Your task to perform on an android device: add a contact in the contacts app Image 0: 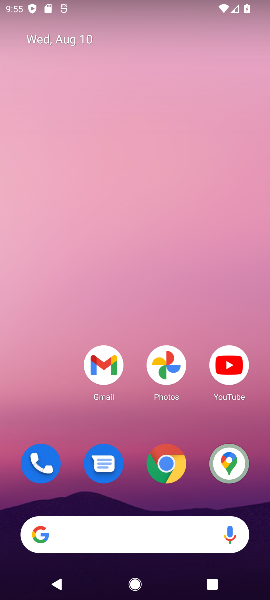
Step 0: click (40, 458)
Your task to perform on an android device: add a contact in the contacts app Image 1: 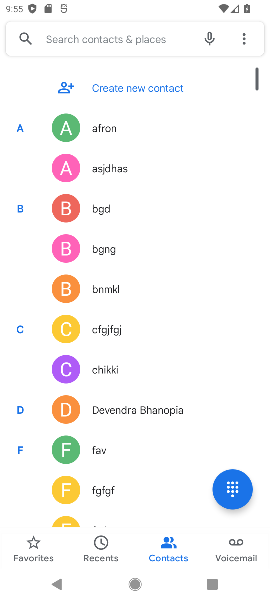
Step 1: click (109, 89)
Your task to perform on an android device: add a contact in the contacts app Image 2: 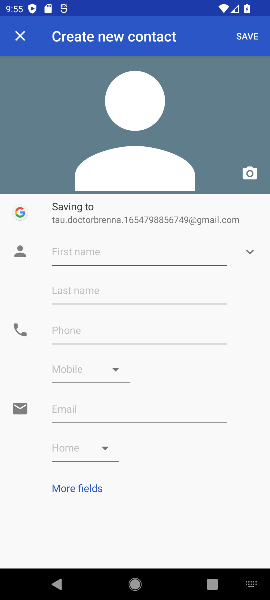
Step 2: type "sdhb"
Your task to perform on an android device: add a contact in the contacts app Image 3: 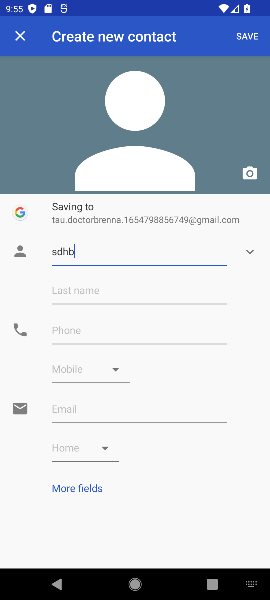
Step 3: click (247, 33)
Your task to perform on an android device: add a contact in the contacts app Image 4: 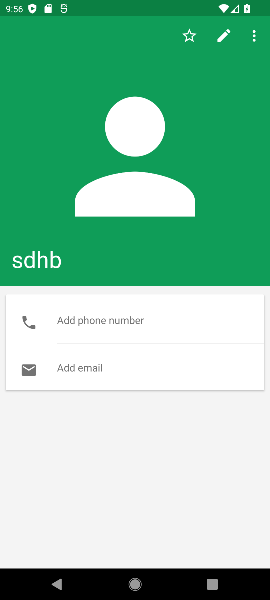
Step 4: task complete